Your task to perform on an android device: Open settings Image 0: 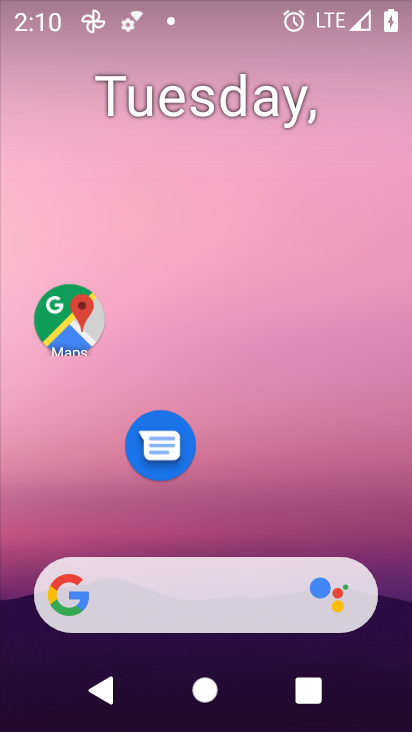
Step 0: drag from (309, 522) to (183, 54)
Your task to perform on an android device: Open settings Image 1: 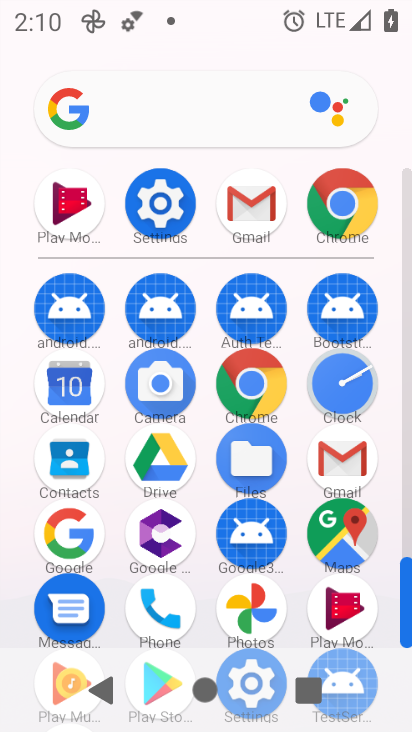
Step 1: click (160, 225)
Your task to perform on an android device: Open settings Image 2: 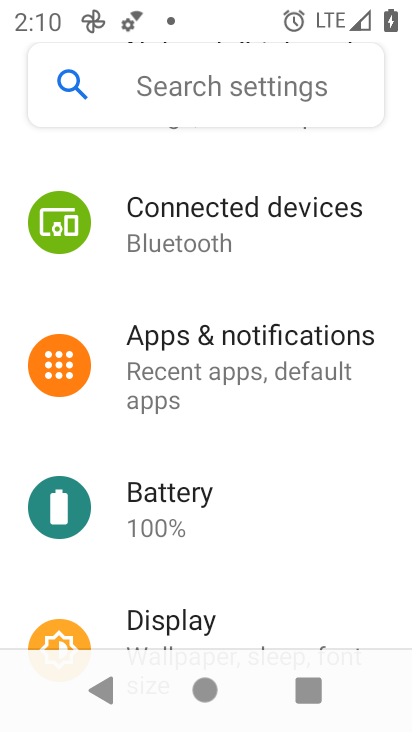
Step 2: task complete